Your task to perform on an android device: change the clock style Image 0: 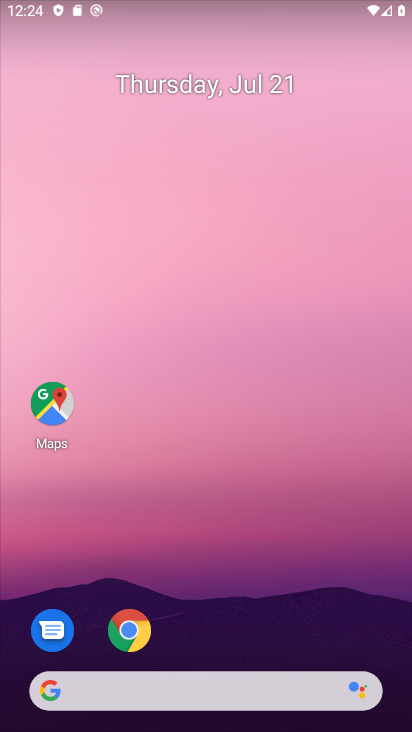
Step 0: drag from (192, 645) to (305, 53)
Your task to perform on an android device: change the clock style Image 1: 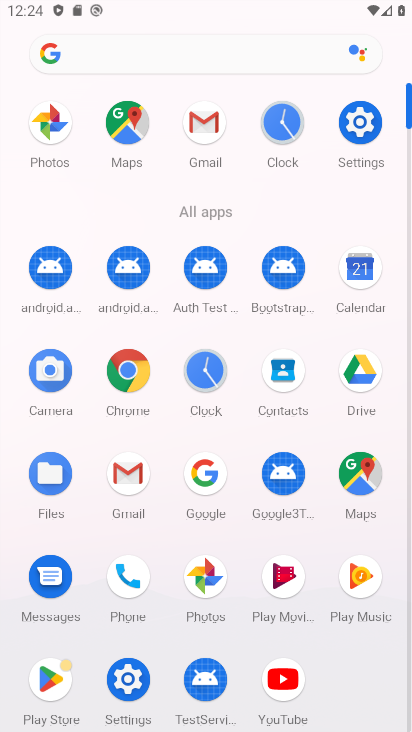
Step 1: click (208, 378)
Your task to perform on an android device: change the clock style Image 2: 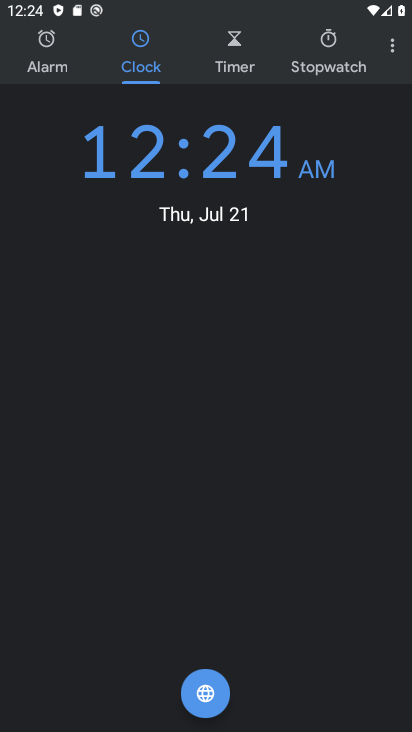
Step 2: click (389, 41)
Your task to perform on an android device: change the clock style Image 3: 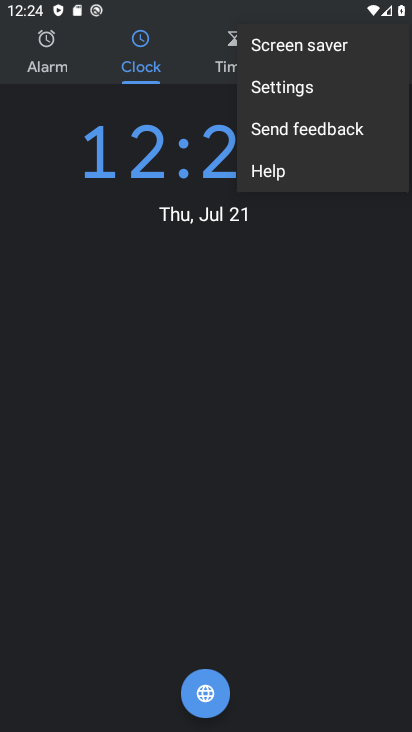
Step 3: click (283, 87)
Your task to perform on an android device: change the clock style Image 4: 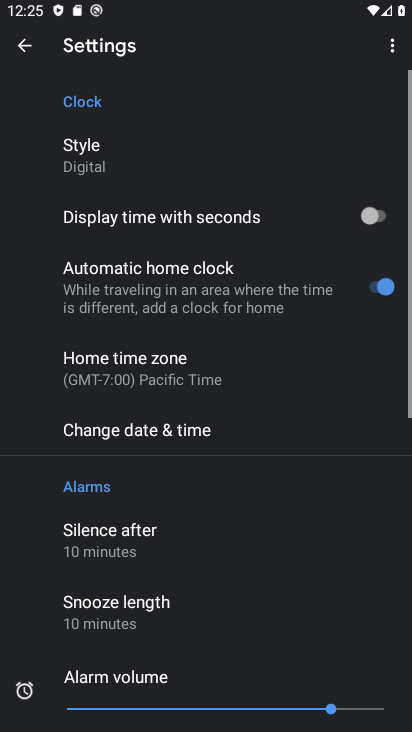
Step 4: click (125, 161)
Your task to perform on an android device: change the clock style Image 5: 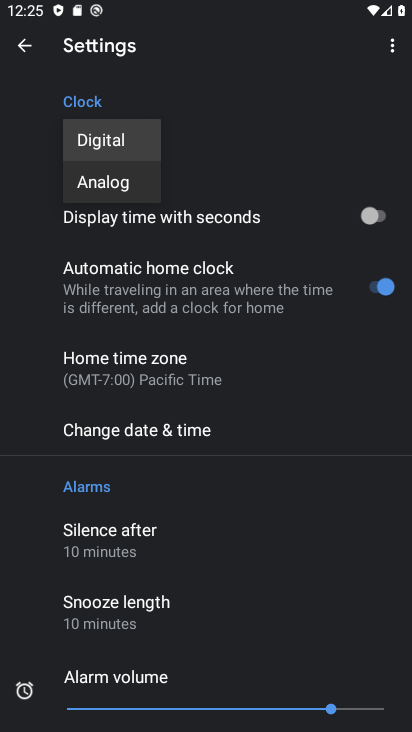
Step 5: click (110, 185)
Your task to perform on an android device: change the clock style Image 6: 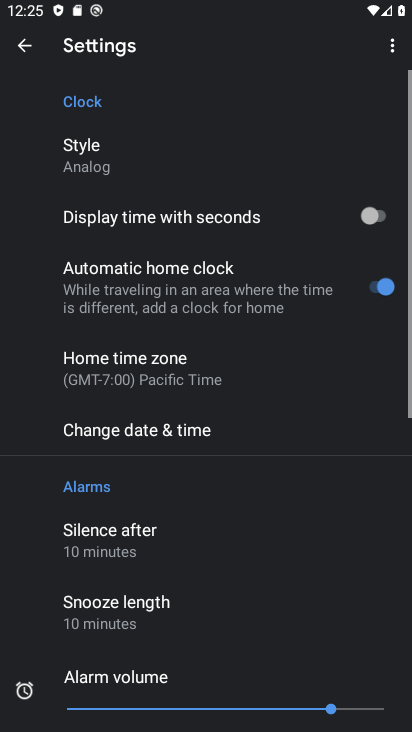
Step 6: task complete